Your task to perform on an android device: open sync settings in chrome Image 0: 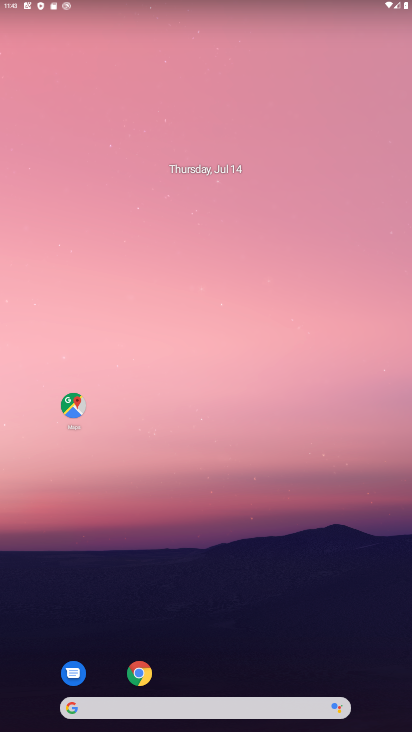
Step 0: click (140, 674)
Your task to perform on an android device: open sync settings in chrome Image 1: 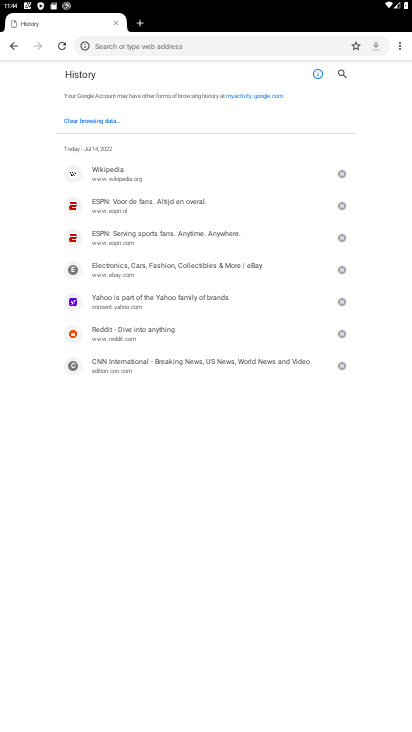
Step 1: click (401, 49)
Your task to perform on an android device: open sync settings in chrome Image 2: 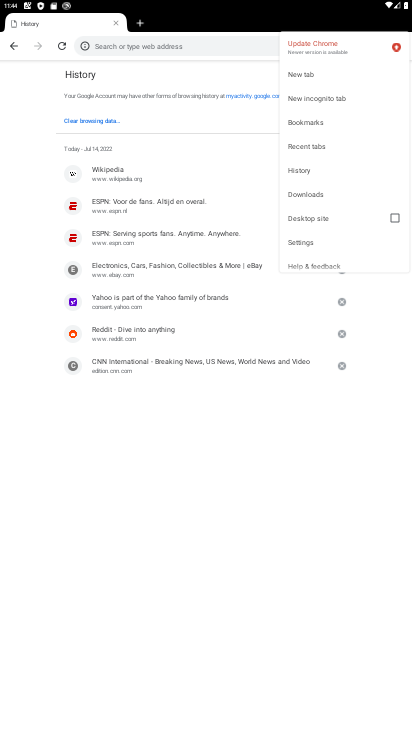
Step 2: click (302, 238)
Your task to perform on an android device: open sync settings in chrome Image 3: 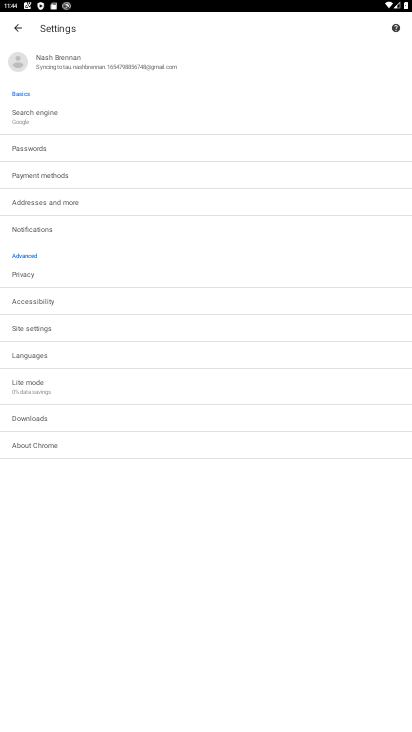
Step 3: click (61, 68)
Your task to perform on an android device: open sync settings in chrome Image 4: 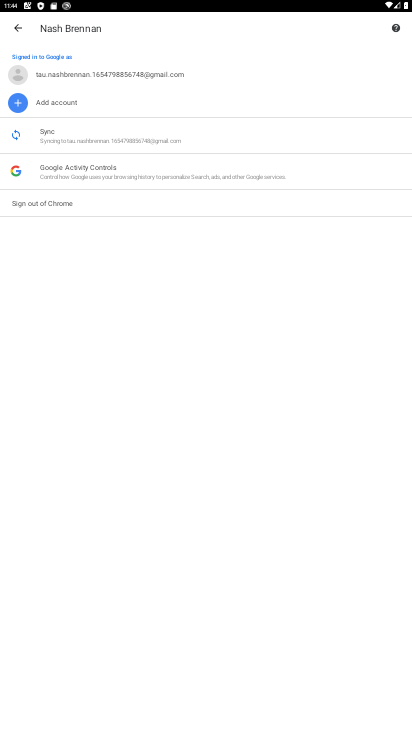
Step 4: click (82, 131)
Your task to perform on an android device: open sync settings in chrome Image 5: 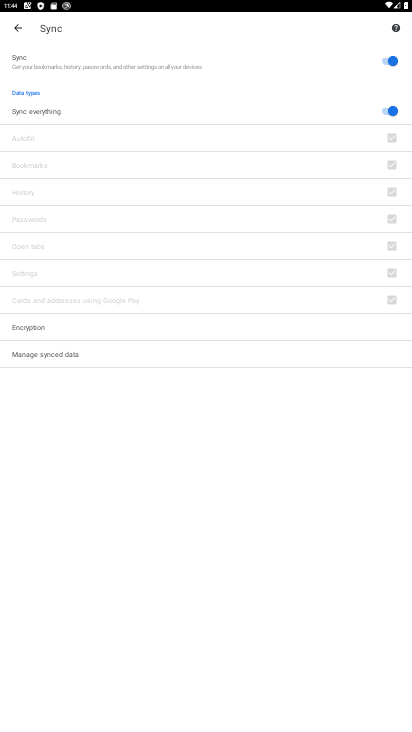
Step 5: task complete